Your task to perform on an android device: turn on improve location accuracy Image 0: 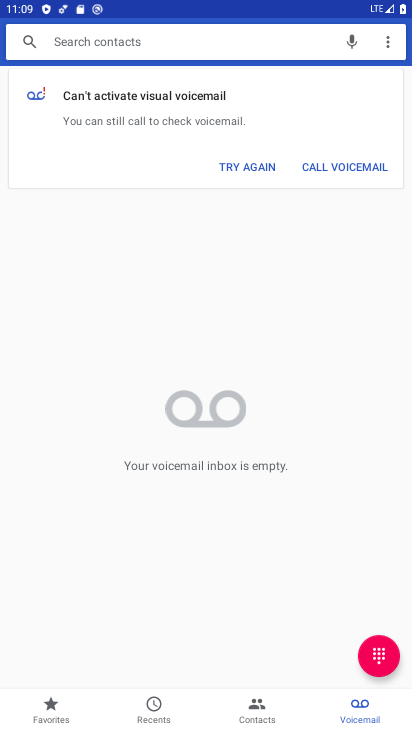
Step 0: press home button
Your task to perform on an android device: turn on improve location accuracy Image 1: 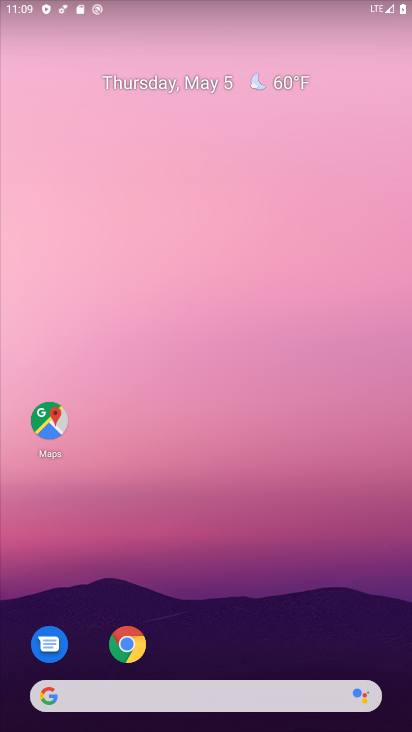
Step 1: drag from (356, 652) to (295, 42)
Your task to perform on an android device: turn on improve location accuracy Image 2: 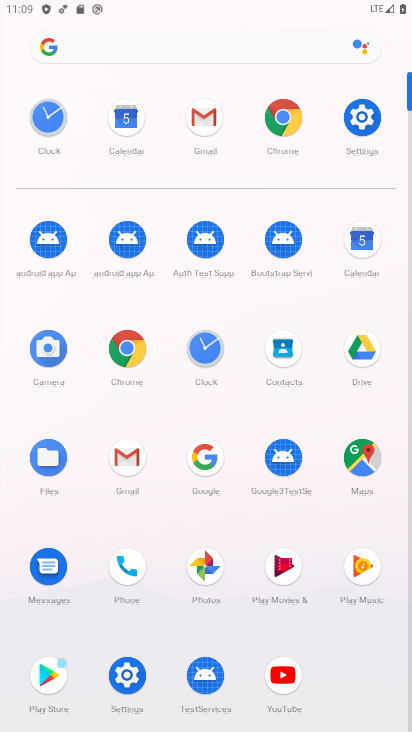
Step 2: click (353, 118)
Your task to perform on an android device: turn on improve location accuracy Image 3: 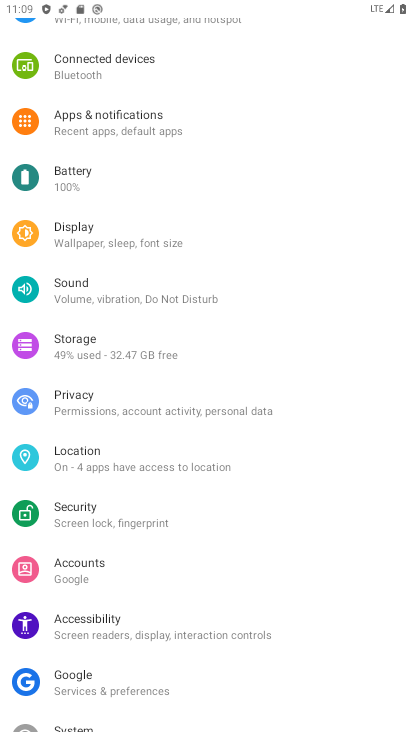
Step 3: drag from (276, 548) to (281, 212)
Your task to perform on an android device: turn on improve location accuracy Image 4: 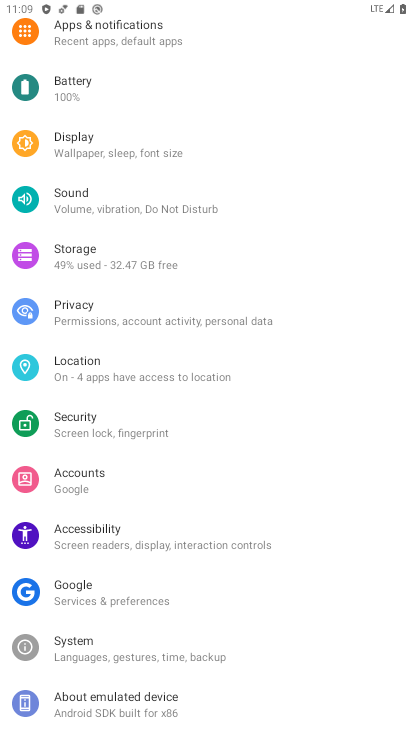
Step 4: click (88, 372)
Your task to perform on an android device: turn on improve location accuracy Image 5: 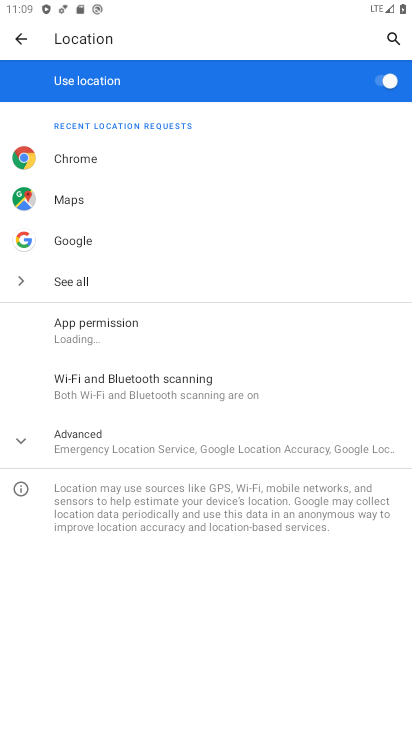
Step 5: click (143, 435)
Your task to perform on an android device: turn on improve location accuracy Image 6: 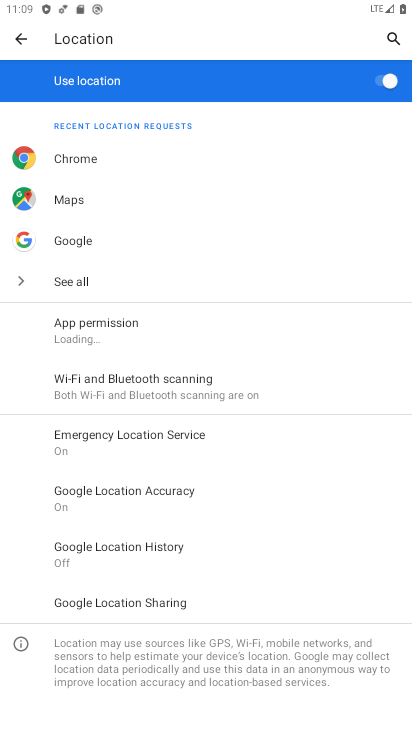
Step 6: click (90, 500)
Your task to perform on an android device: turn on improve location accuracy Image 7: 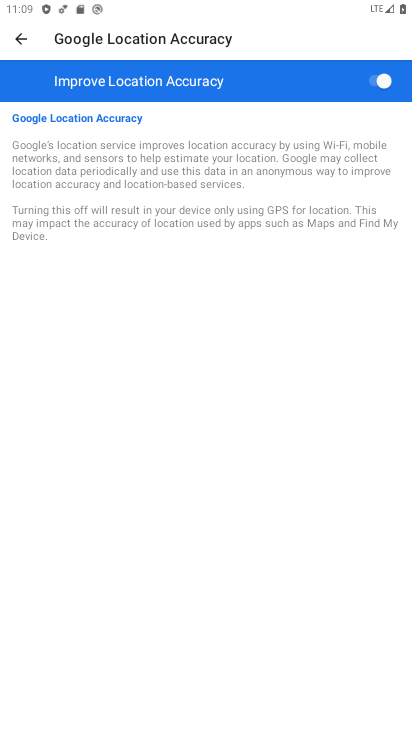
Step 7: task complete